Your task to perform on an android device: Go to Reddit.com Image 0: 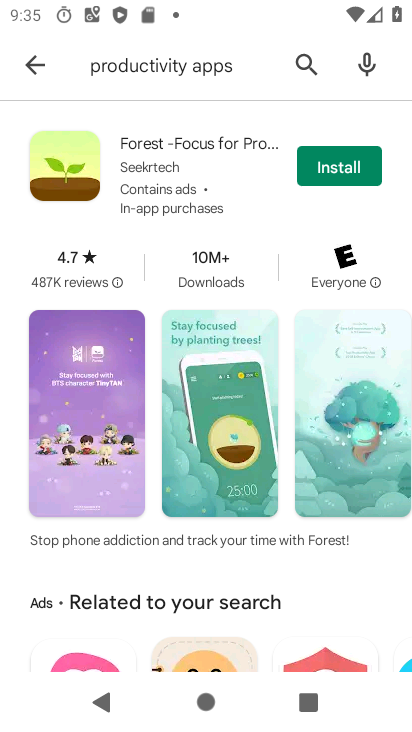
Step 0: press home button
Your task to perform on an android device: Go to Reddit.com Image 1: 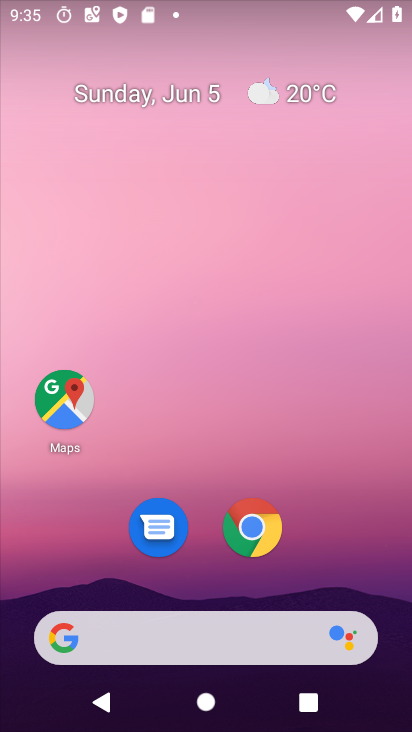
Step 1: drag from (338, 539) to (340, 71)
Your task to perform on an android device: Go to Reddit.com Image 2: 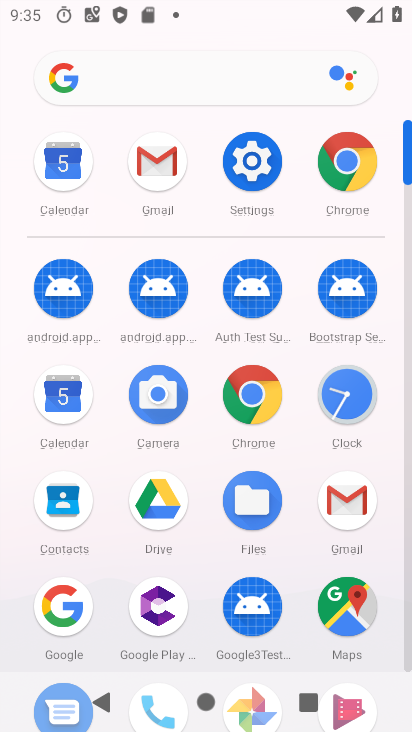
Step 2: click (334, 170)
Your task to perform on an android device: Go to Reddit.com Image 3: 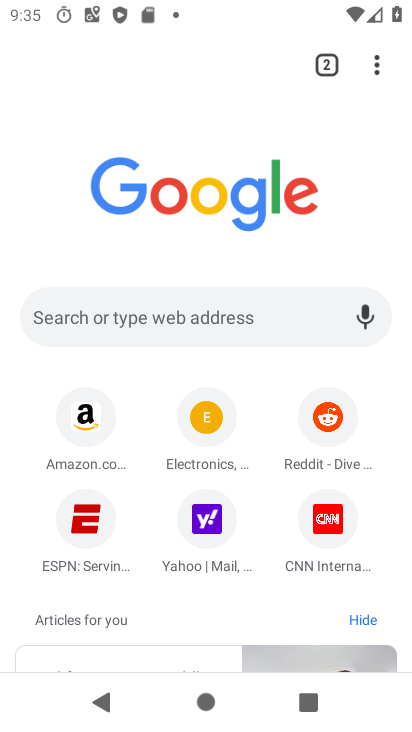
Step 3: click (138, 321)
Your task to perform on an android device: Go to Reddit.com Image 4: 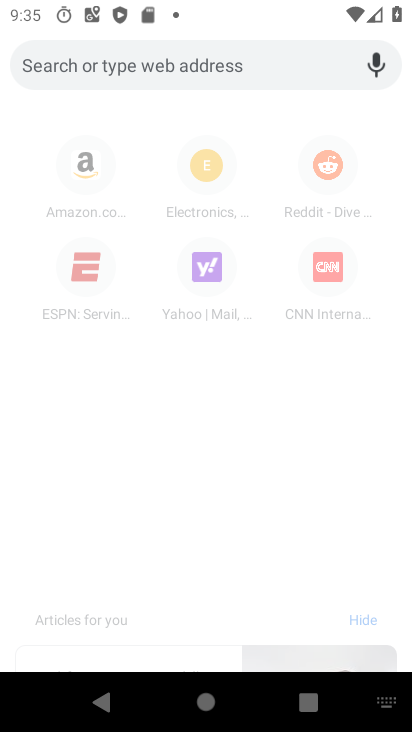
Step 4: type "reddit"
Your task to perform on an android device: Go to Reddit.com Image 5: 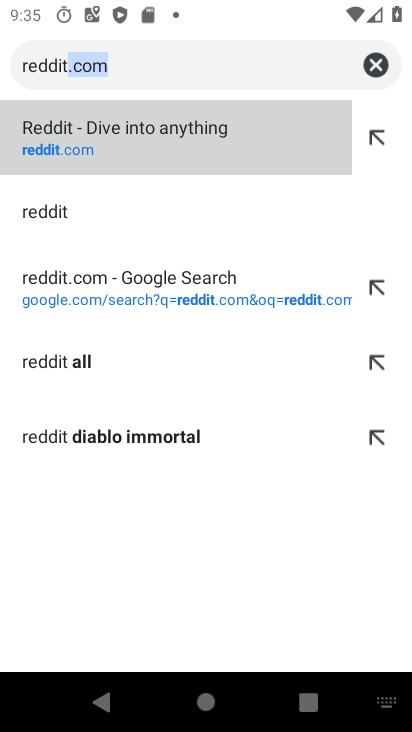
Step 5: click (87, 140)
Your task to perform on an android device: Go to Reddit.com Image 6: 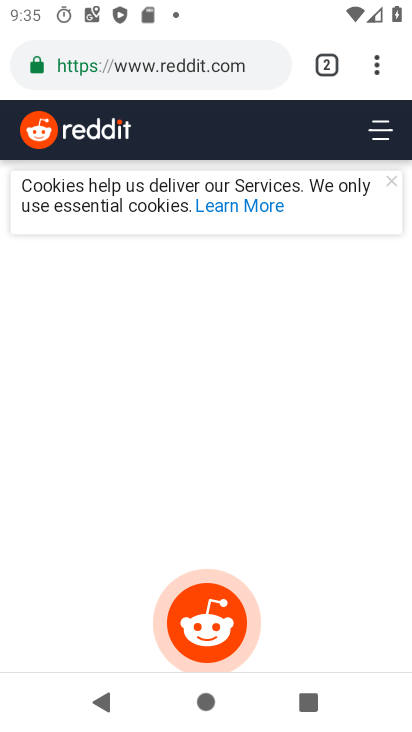
Step 6: task complete